Your task to perform on an android device: Search for the best rated vacuums on Target Image 0: 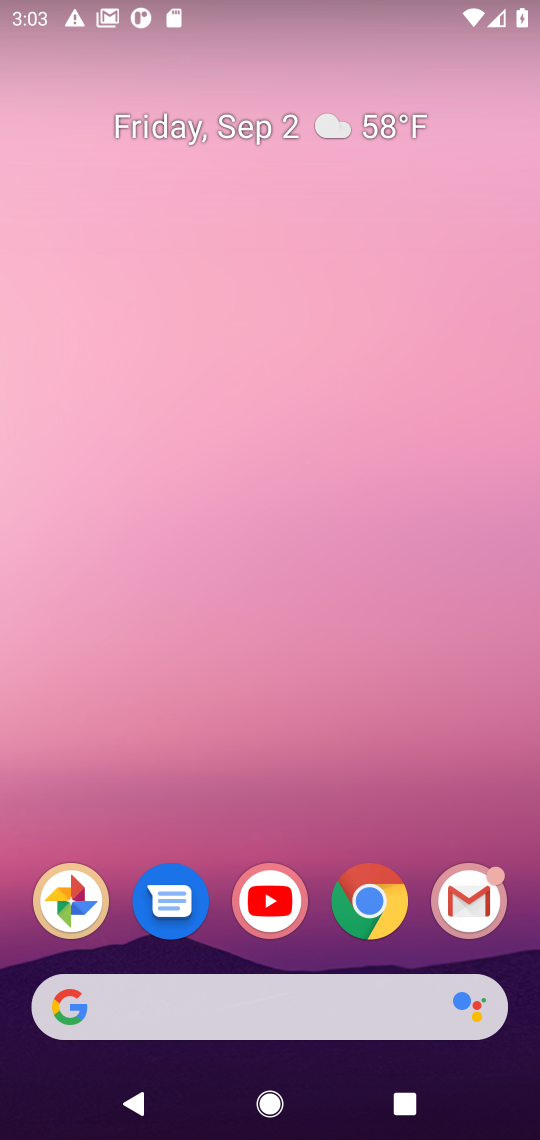
Step 0: drag from (400, 813) to (329, 0)
Your task to perform on an android device: Search for the best rated vacuums on Target Image 1: 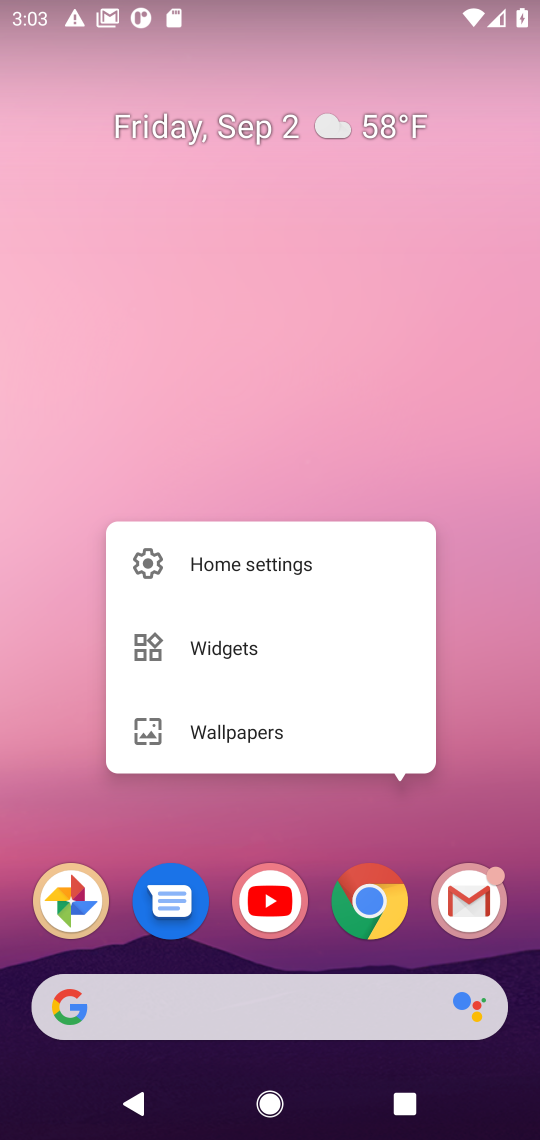
Step 1: click (488, 790)
Your task to perform on an android device: Search for the best rated vacuums on Target Image 2: 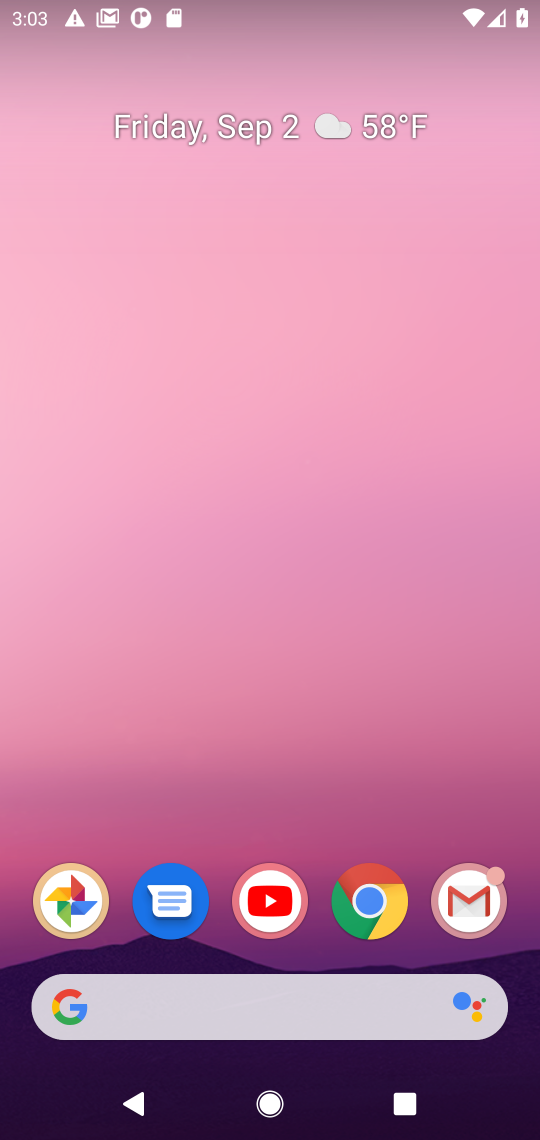
Step 2: drag from (325, 763) to (371, 93)
Your task to perform on an android device: Search for the best rated vacuums on Target Image 3: 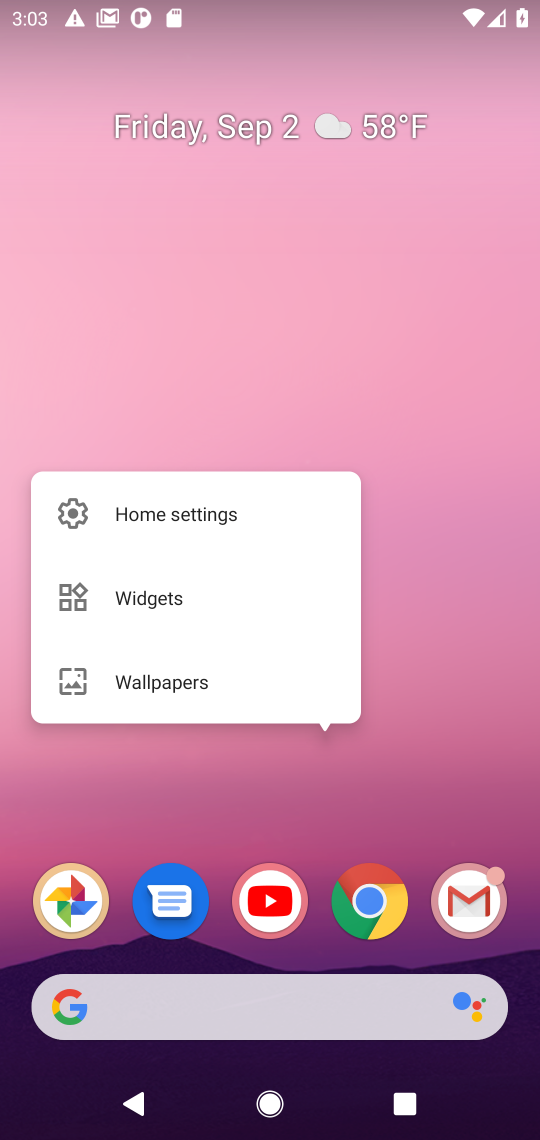
Step 3: click (441, 682)
Your task to perform on an android device: Search for the best rated vacuums on Target Image 4: 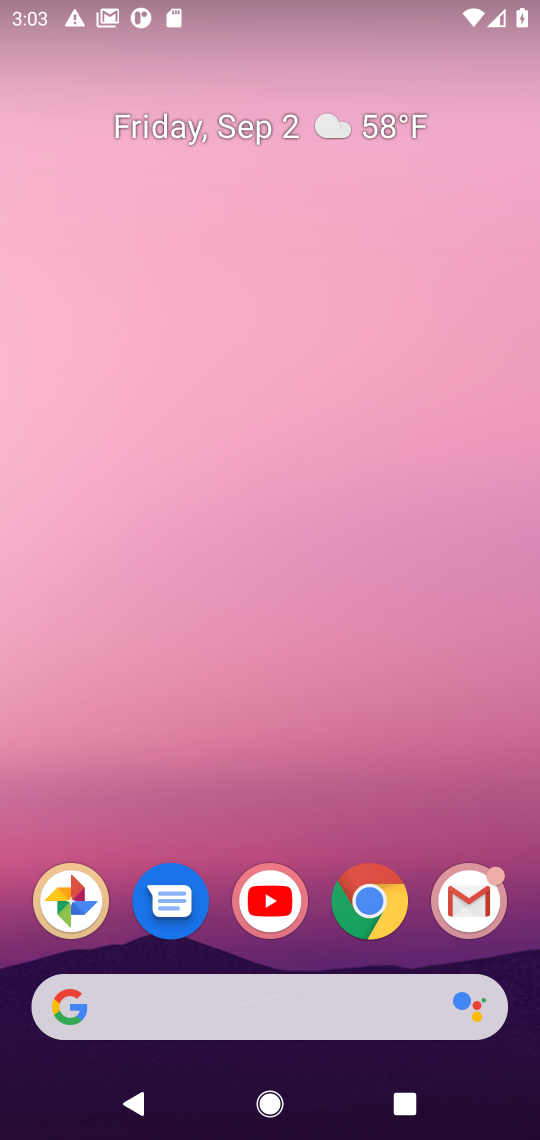
Step 4: drag from (374, 722) to (312, 16)
Your task to perform on an android device: Search for the best rated vacuums on Target Image 5: 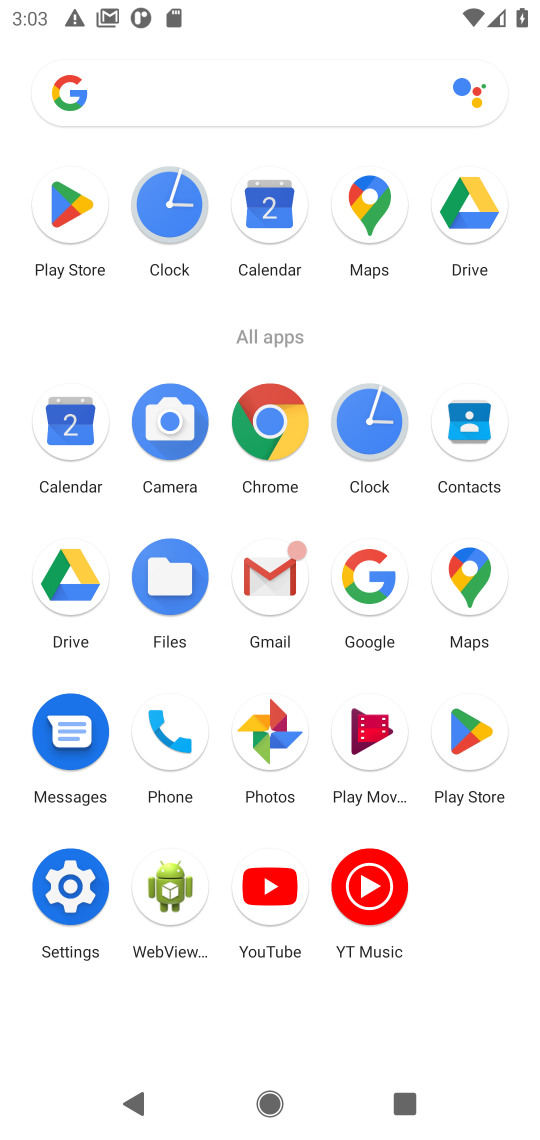
Step 5: click (266, 427)
Your task to perform on an android device: Search for the best rated vacuums on Target Image 6: 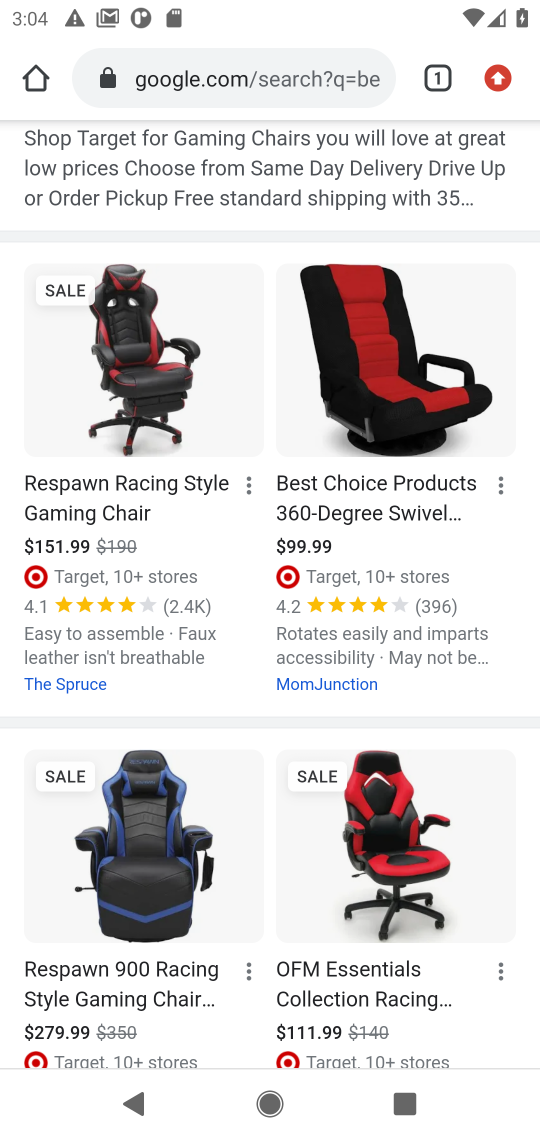
Step 6: click (295, 80)
Your task to perform on an android device: Search for the best rated vacuums on Target Image 7: 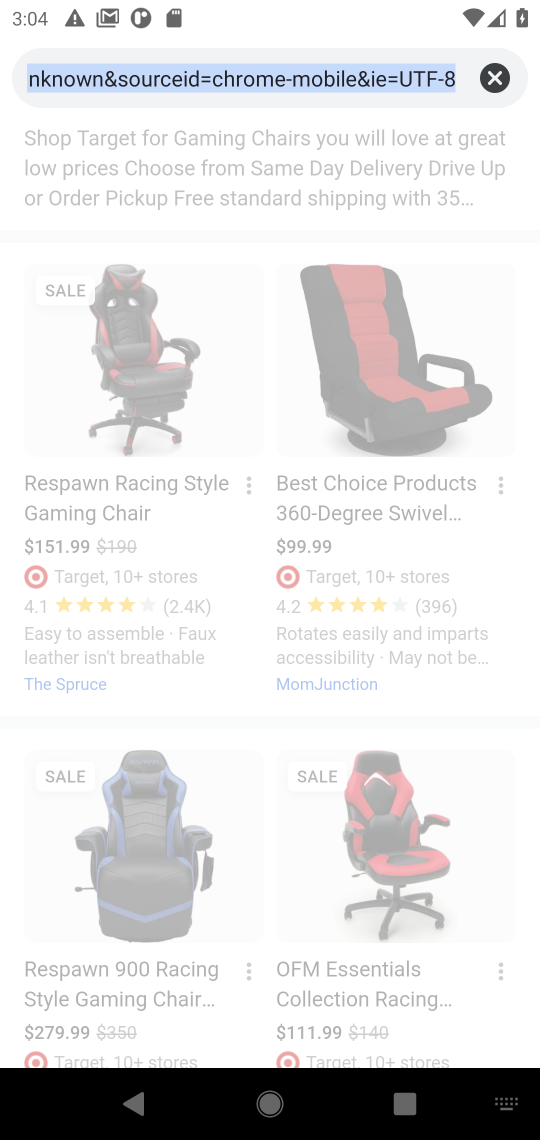
Step 7: type "best rated vacuums on target"
Your task to perform on an android device: Search for the best rated vacuums on Target Image 8: 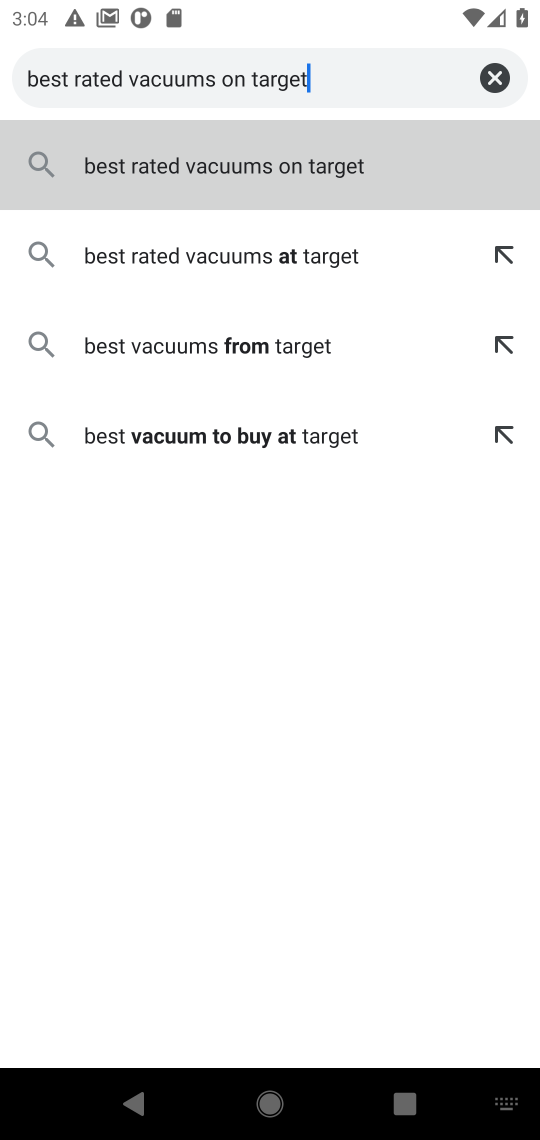
Step 8: press enter
Your task to perform on an android device: Search for the best rated vacuums on Target Image 9: 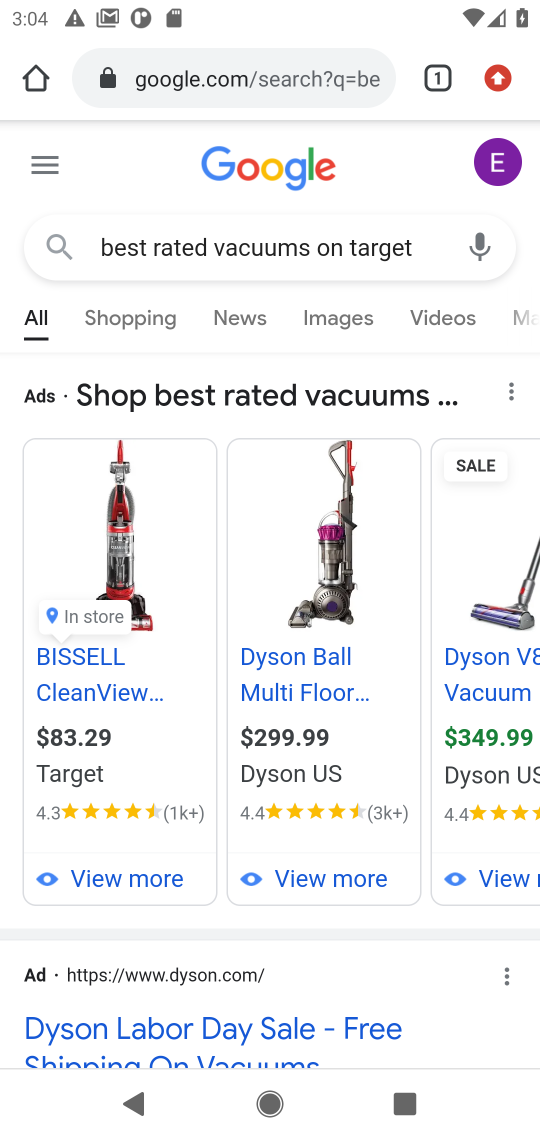
Step 9: drag from (315, 992) to (321, 343)
Your task to perform on an android device: Search for the best rated vacuums on Target Image 10: 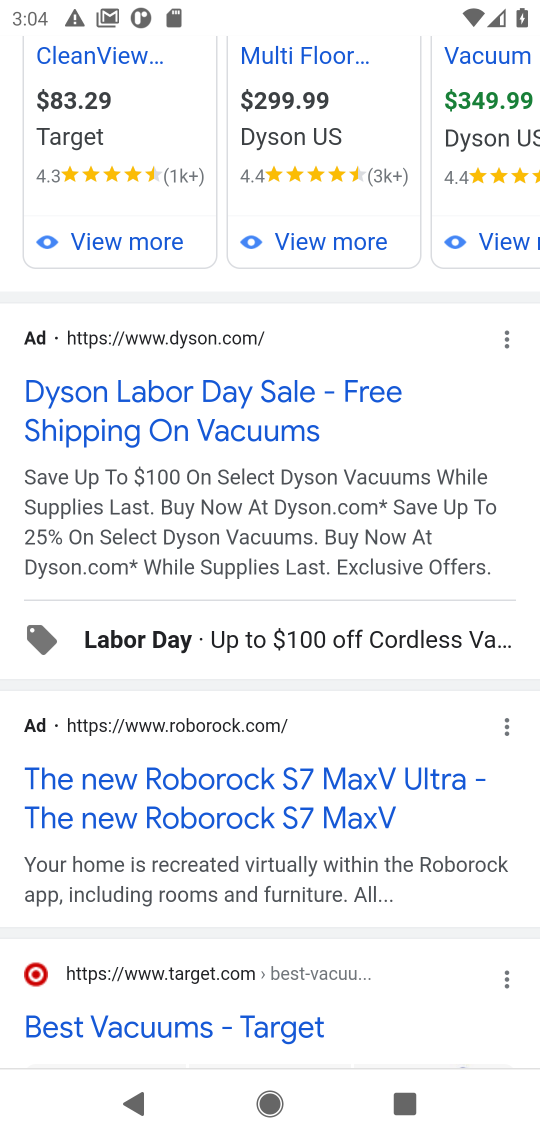
Step 10: drag from (333, 858) to (322, 303)
Your task to perform on an android device: Search for the best rated vacuums on Target Image 11: 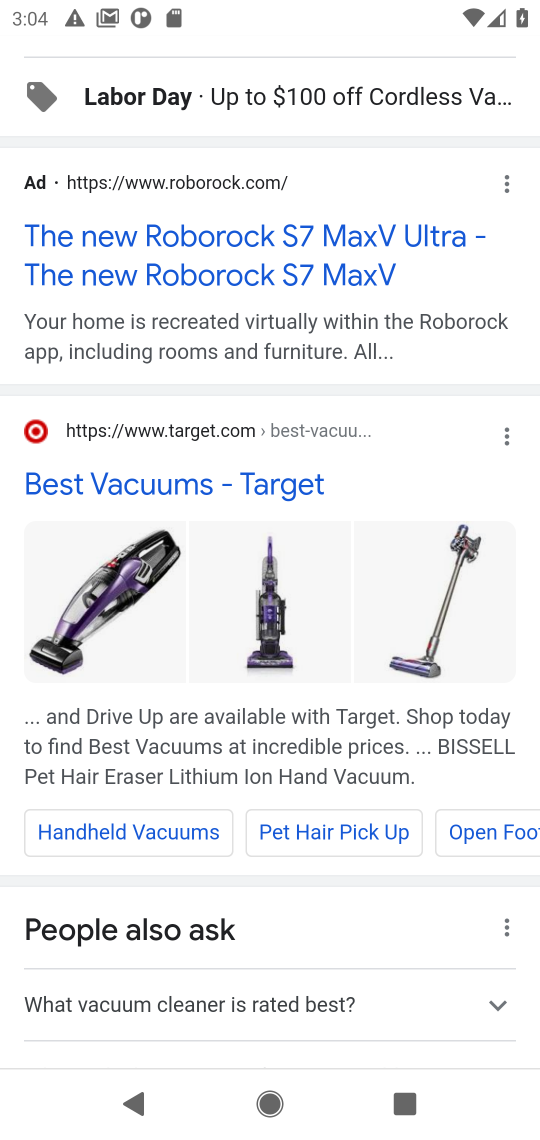
Step 11: click (232, 476)
Your task to perform on an android device: Search for the best rated vacuums on Target Image 12: 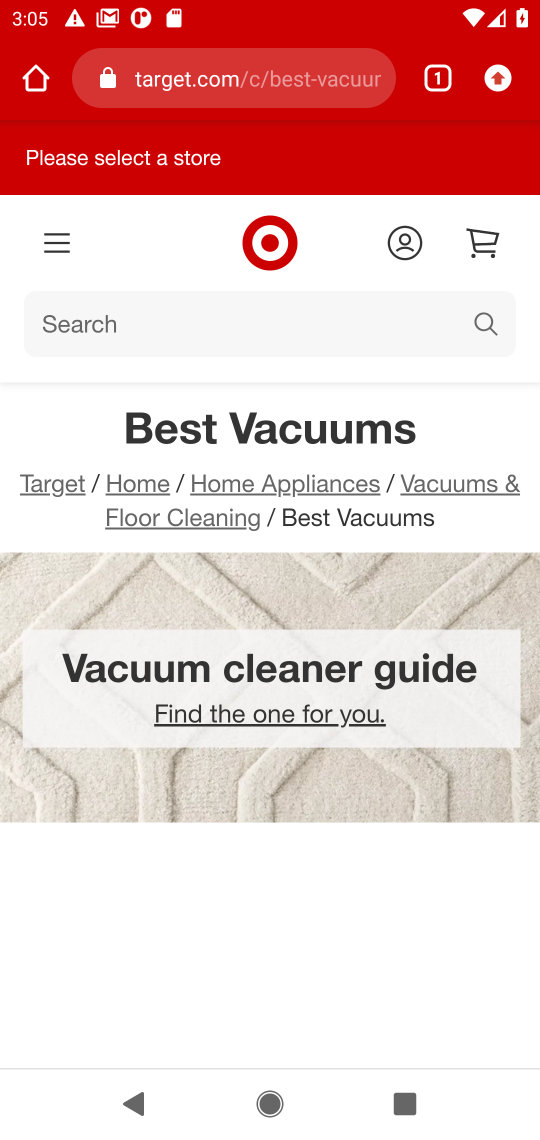
Step 12: task complete